Your task to perform on an android device: Go to wifi settings Image 0: 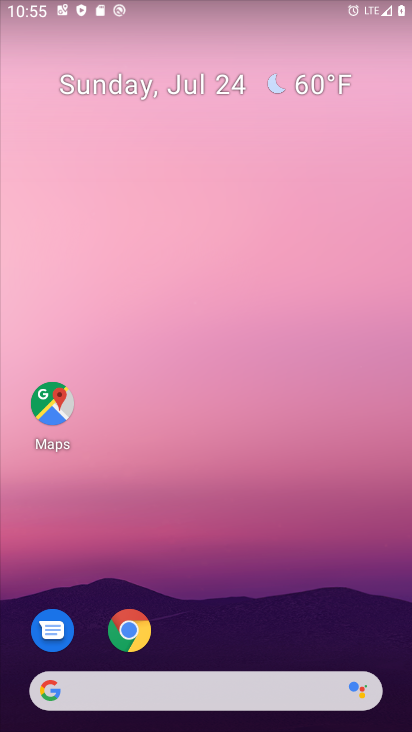
Step 0: drag from (238, 585) to (305, 36)
Your task to perform on an android device: Go to wifi settings Image 1: 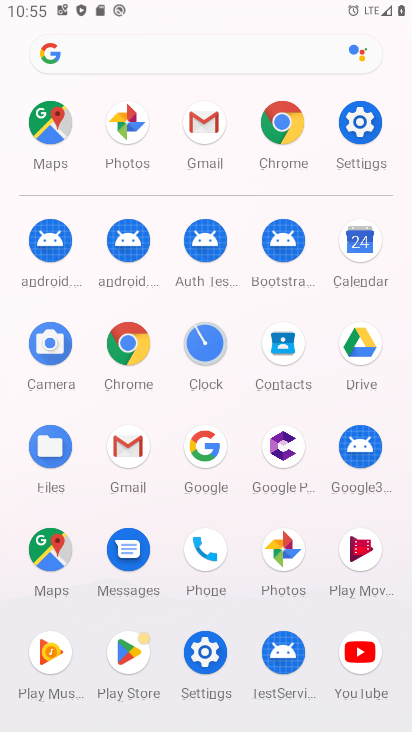
Step 1: click (210, 660)
Your task to perform on an android device: Go to wifi settings Image 2: 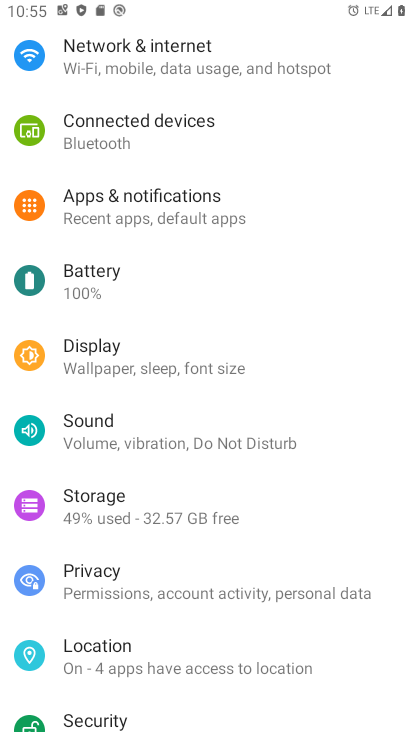
Step 2: click (156, 60)
Your task to perform on an android device: Go to wifi settings Image 3: 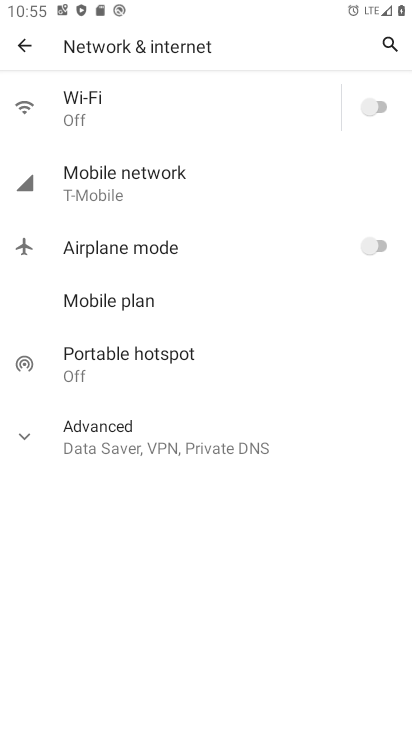
Step 3: click (104, 120)
Your task to perform on an android device: Go to wifi settings Image 4: 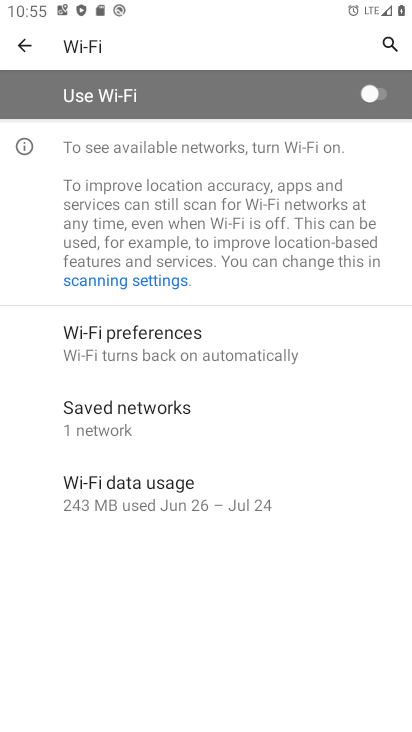
Step 4: task complete